Your task to perform on an android device: Go to privacy settings Image 0: 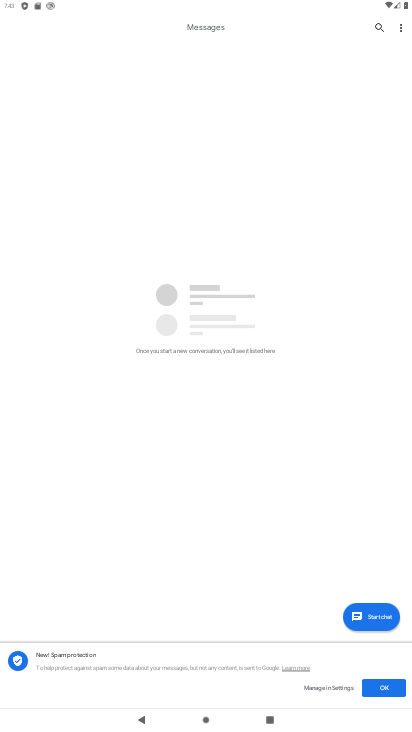
Step 0: press home button
Your task to perform on an android device: Go to privacy settings Image 1: 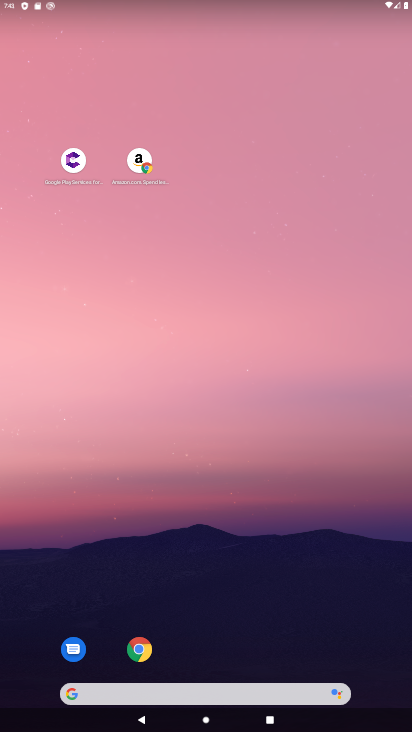
Step 1: drag from (206, 689) to (211, 113)
Your task to perform on an android device: Go to privacy settings Image 2: 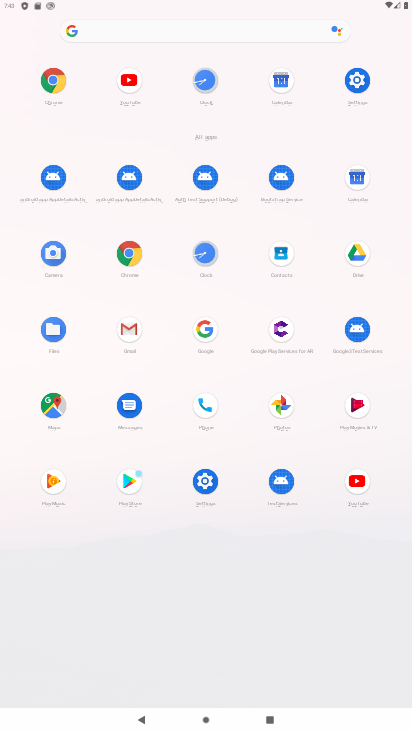
Step 2: click (357, 81)
Your task to perform on an android device: Go to privacy settings Image 3: 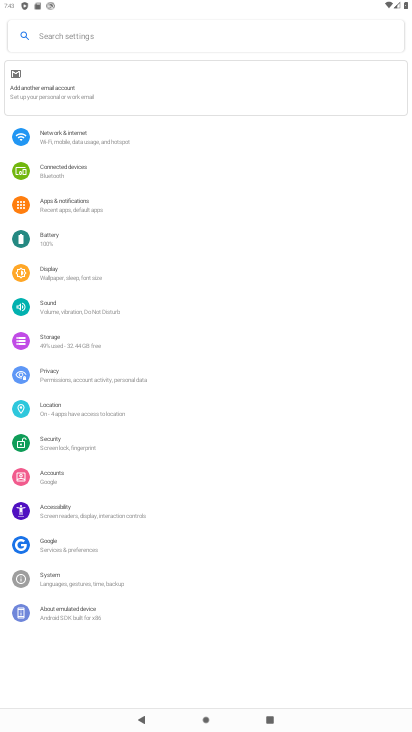
Step 3: click (67, 380)
Your task to perform on an android device: Go to privacy settings Image 4: 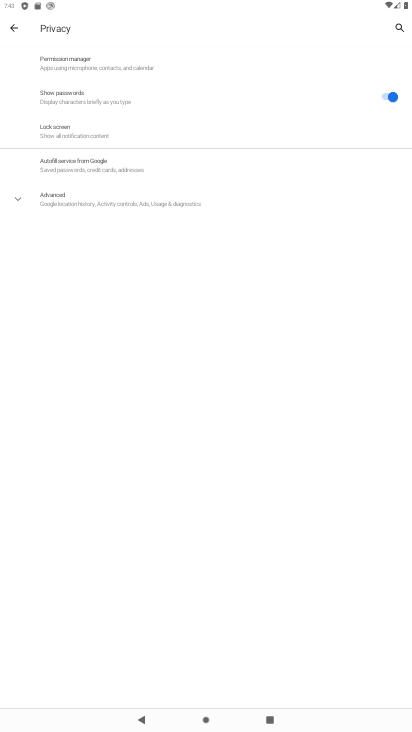
Step 4: task complete